Your task to perform on an android device: Add apple airpods to the cart on target.com Image 0: 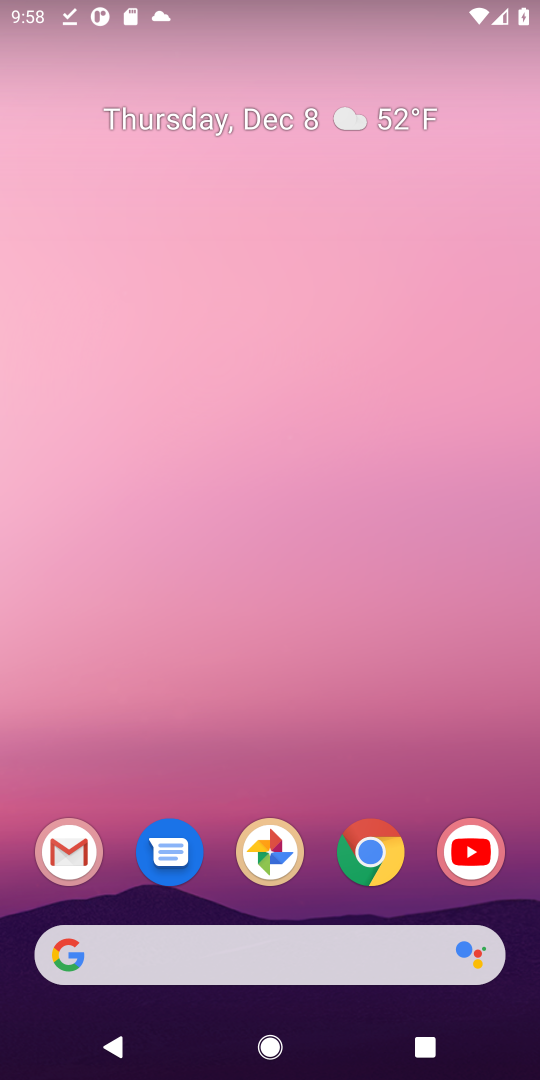
Step 0: click (304, 952)
Your task to perform on an android device: Add apple airpods to the cart on target.com Image 1: 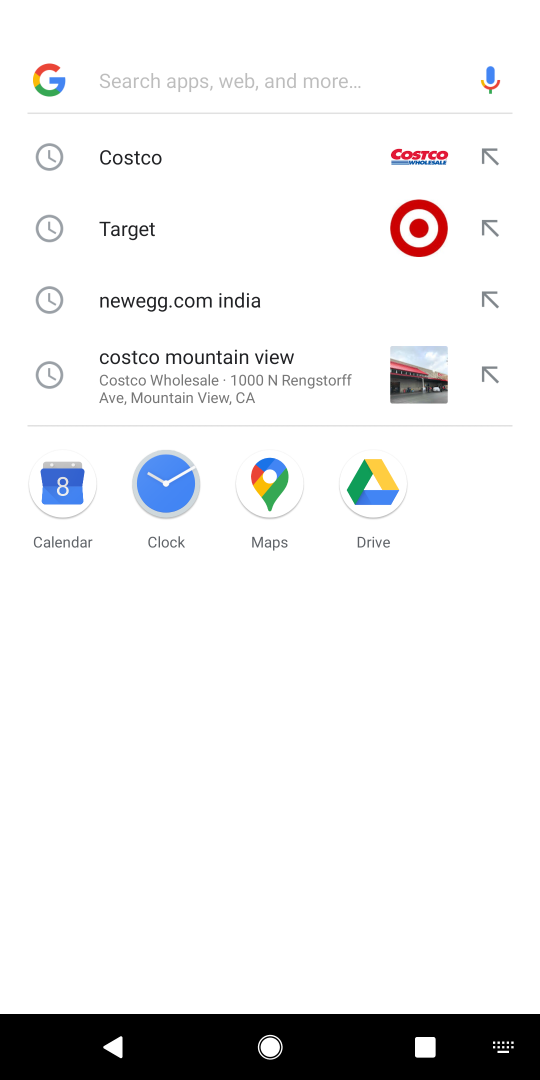
Step 1: click (191, 227)
Your task to perform on an android device: Add apple airpods to the cart on target.com Image 2: 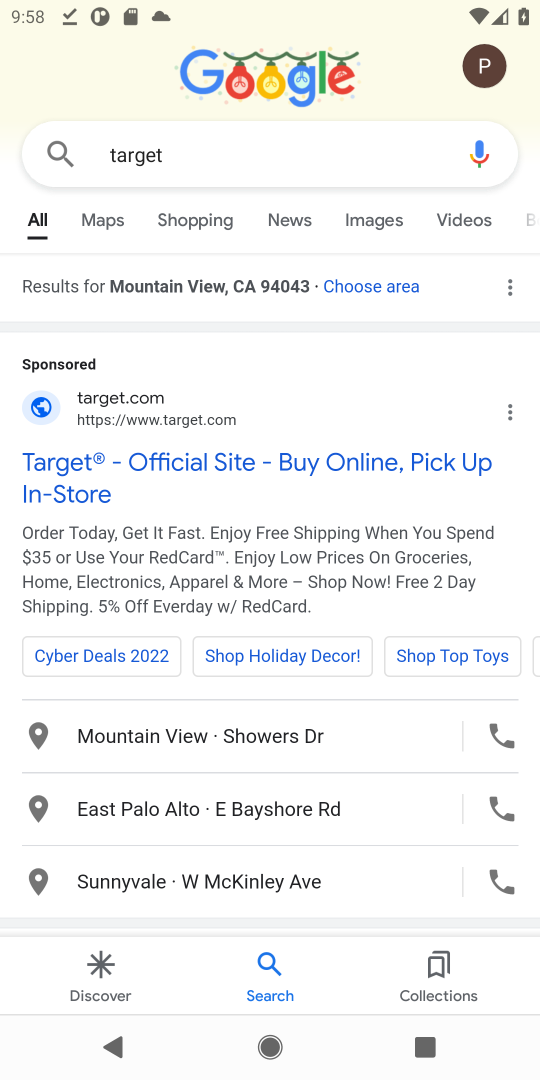
Step 2: click (144, 480)
Your task to perform on an android device: Add apple airpods to the cart on target.com Image 3: 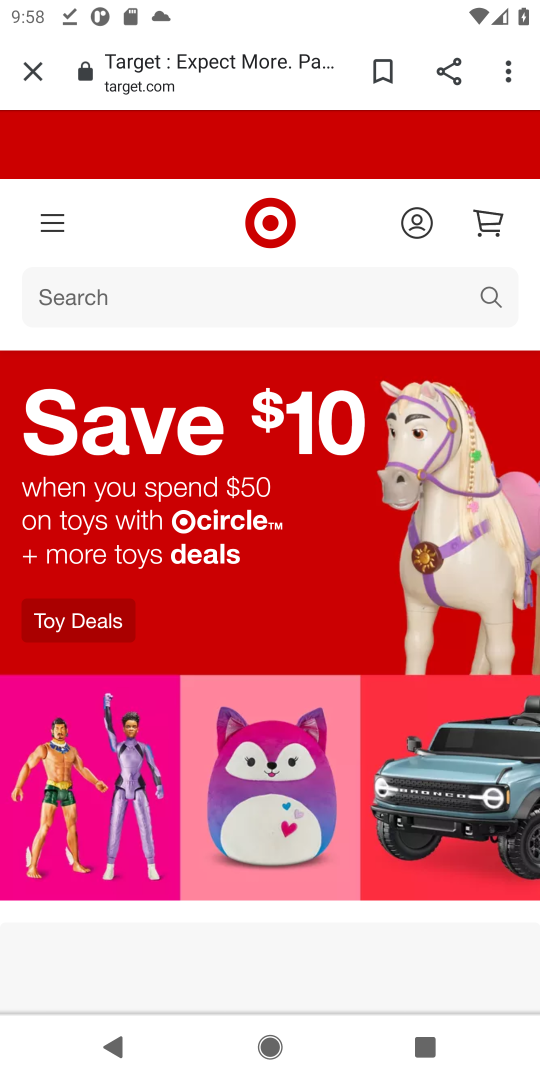
Step 3: click (140, 317)
Your task to perform on an android device: Add apple airpods to the cart on target.com Image 4: 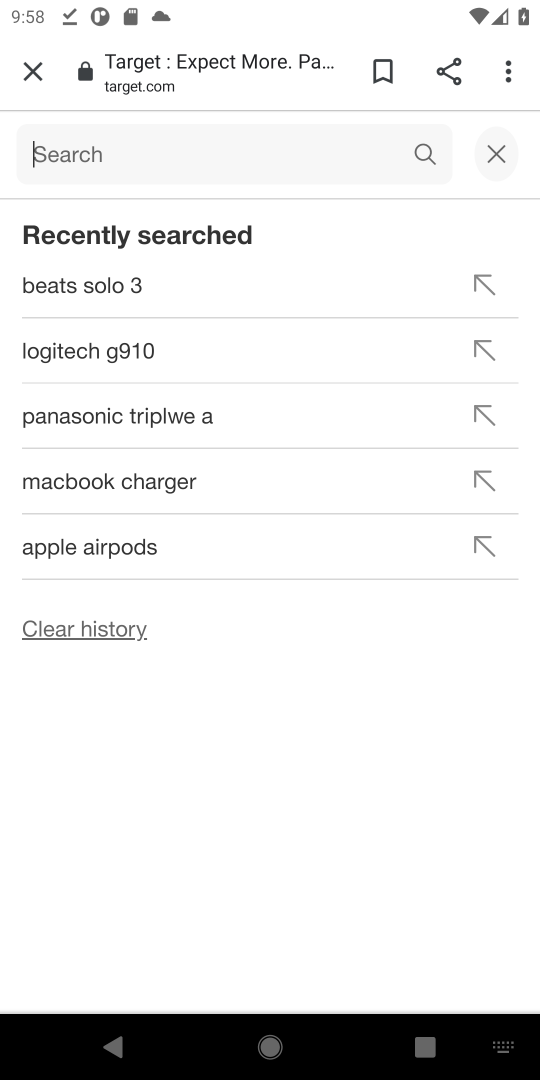
Step 4: type "apple airpods"
Your task to perform on an android device: Add apple airpods to the cart on target.com Image 5: 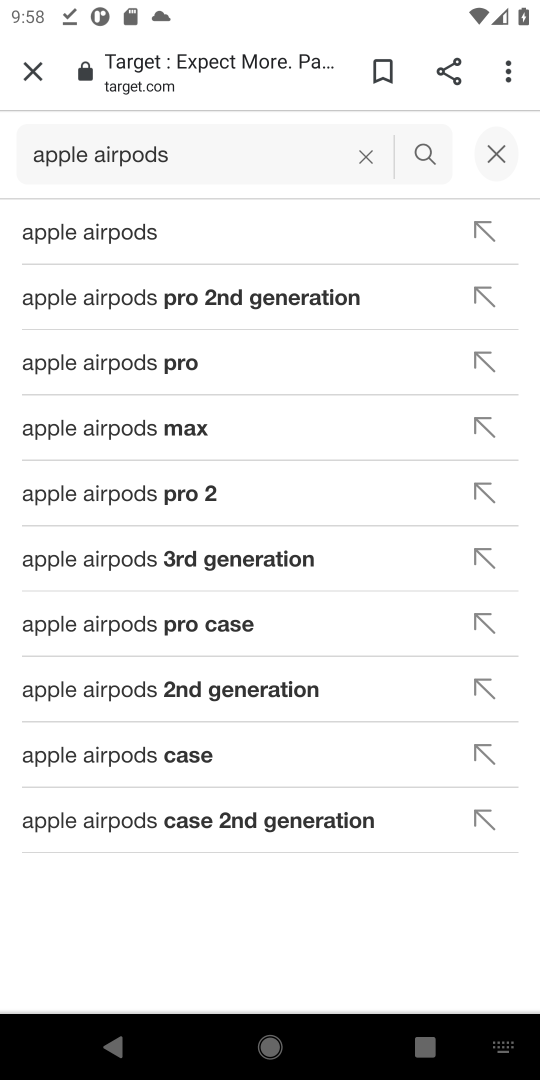
Step 5: click (192, 250)
Your task to perform on an android device: Add apple airpods to the cart on target.com Image 6: 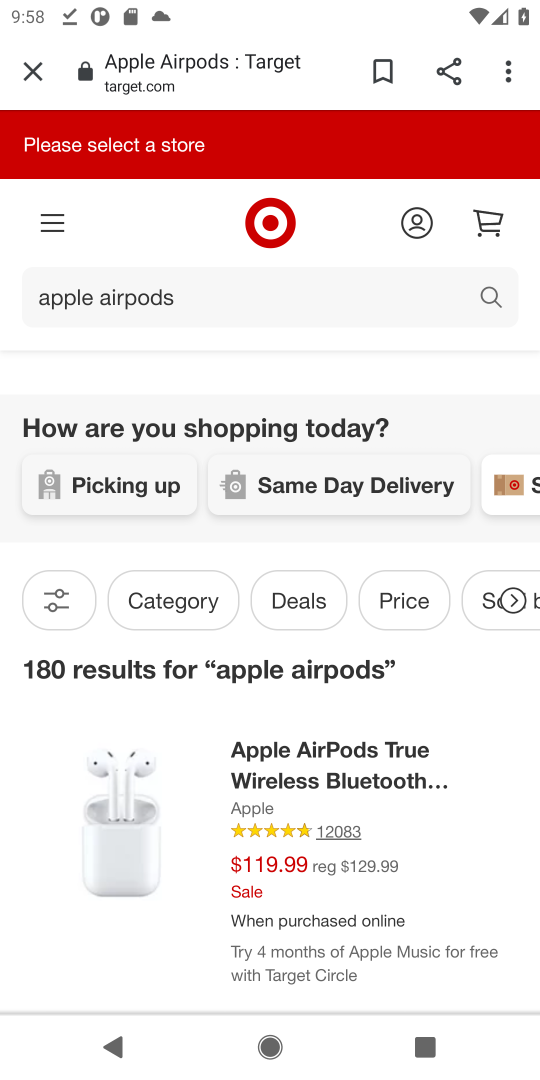
Step 6: click (384, 764)
Your task to perform on an android device: Add apple airpods to the cart on target.com Image 7: 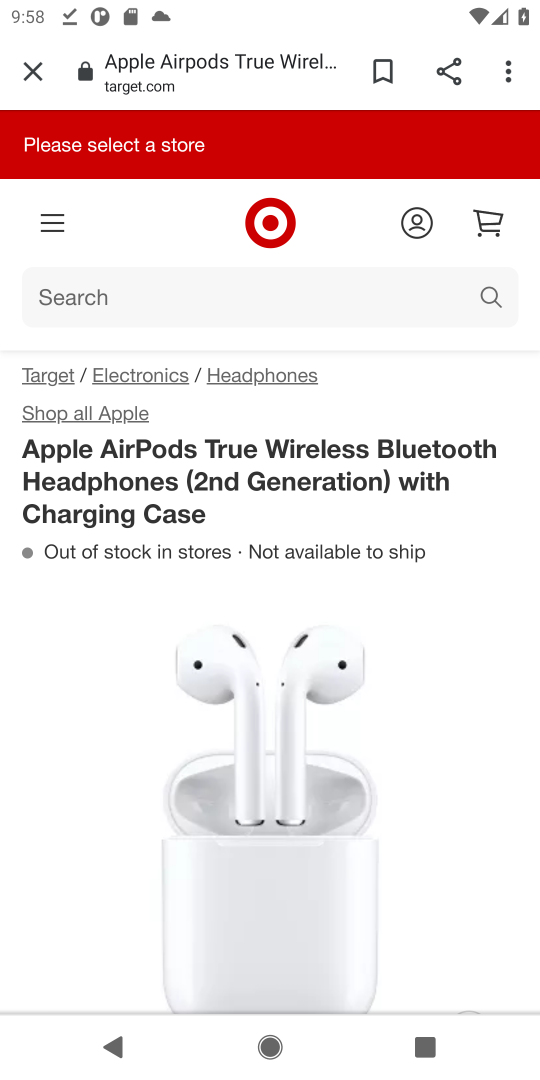
Step 7: drag from (367, 896) to (362, 467)
Your task to perform on an android device: Add apple airpods to the cart on target.com Image 8: 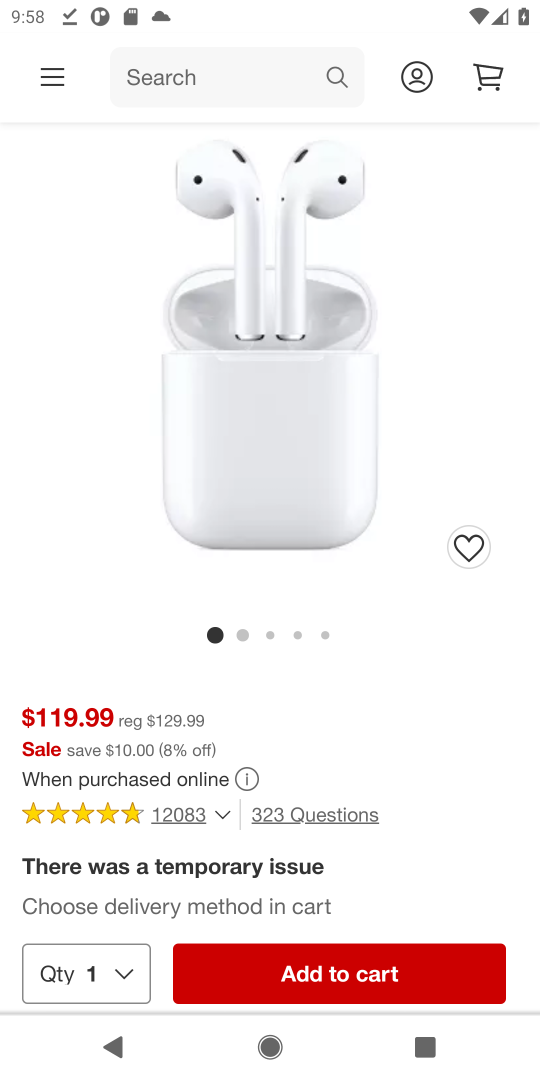
Step 8: click (324, 957)
Your task to perform on an android device: Add apple airpods to the cart on target.com Image 9: 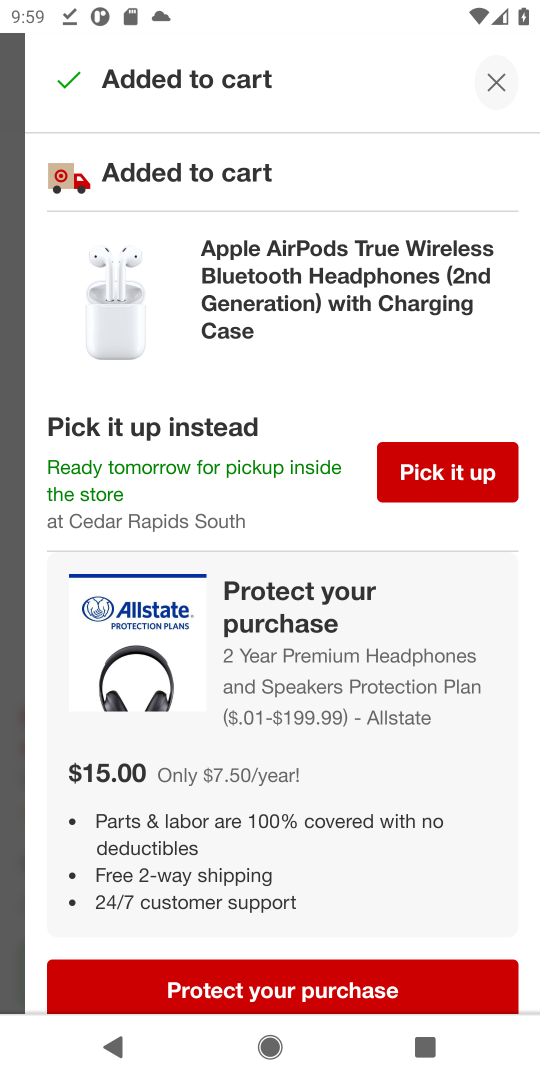
Step 9: task complete